Your task to perform on an android device: change alarm snooze length Image 0: 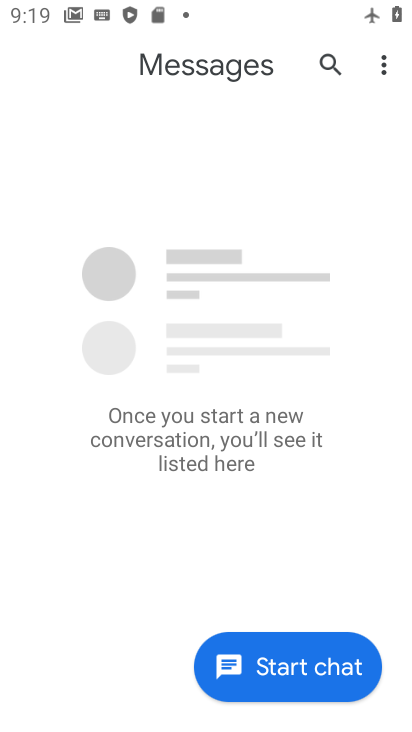
Step 0: press home button
Your task to perform on an android device: change alarm snooze length Image 1: 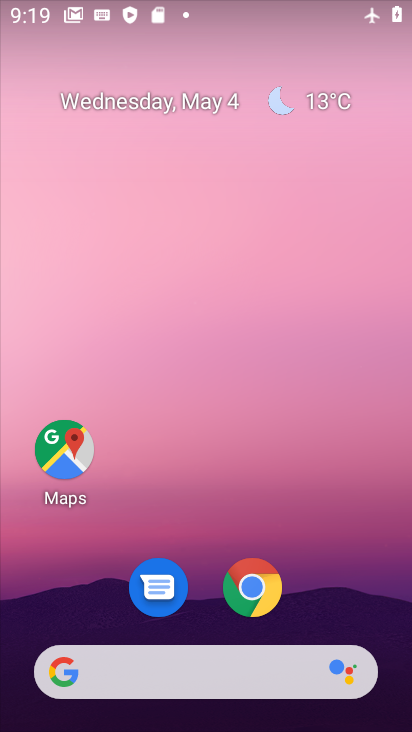
Step 1: drag from (209, 616) to (220, 148)
Your task to perform on an android device: change alarm snooze length Image 2: 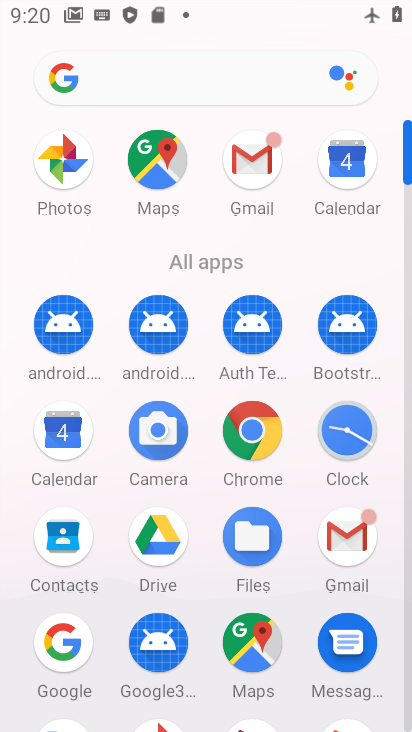
Step 2: click (352, 441)
Your task to perform on an android device: change alarm snooze length Image 3: 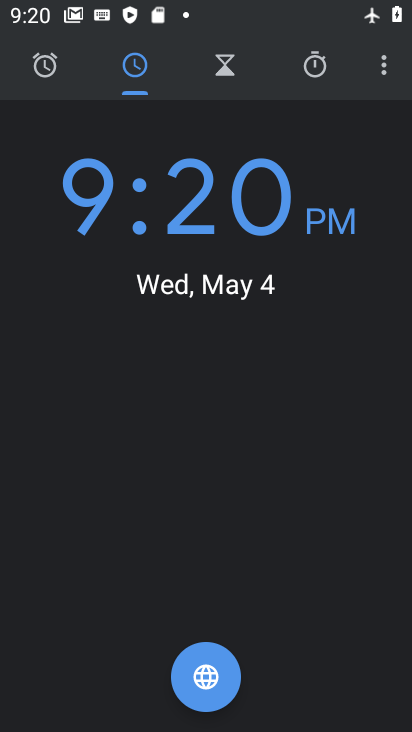
Step 3: click (378, 67)
Your task to perform on an android device: change alarm snooze length Image 4: 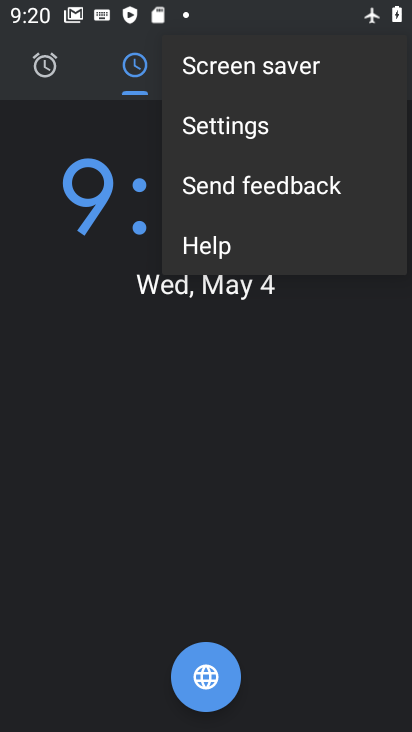
Step 4: click (224, 145)
Your task to perform on an android device: change alarm snooze length Image 5: 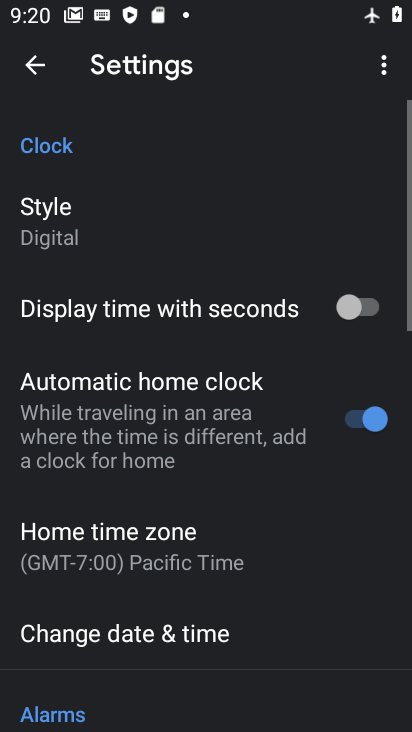
Step 5: drag from (213, 557) to (276, 30)
Your task to perform on an android device: change alarm snooze length Image 6: 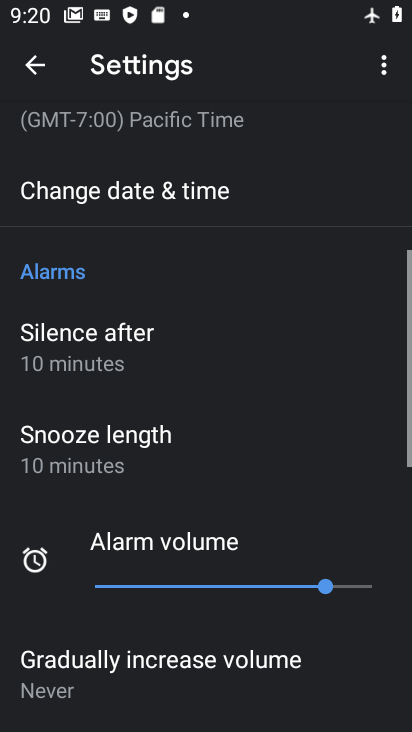
Step 6: click (101, 439)
Your task to perform on an android device: change alarm snooze length Image 7: 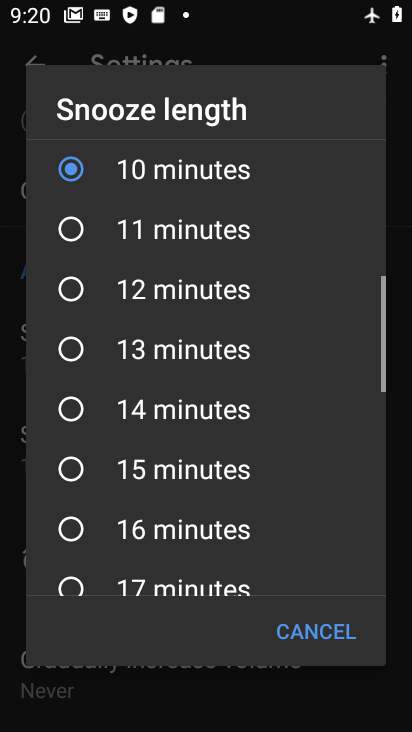
Step 7: click (66, 217)
Your task to perform on an android device: change alarm snooze length Image 8: 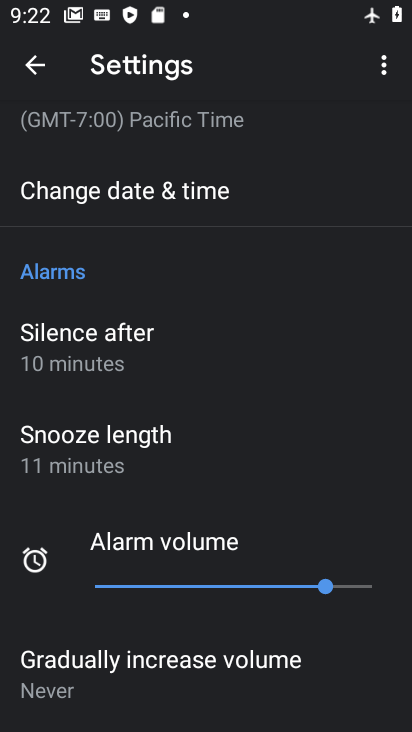
Step 8: task complete